Your task to perform on an android device: toggle airplane mode Image 0: 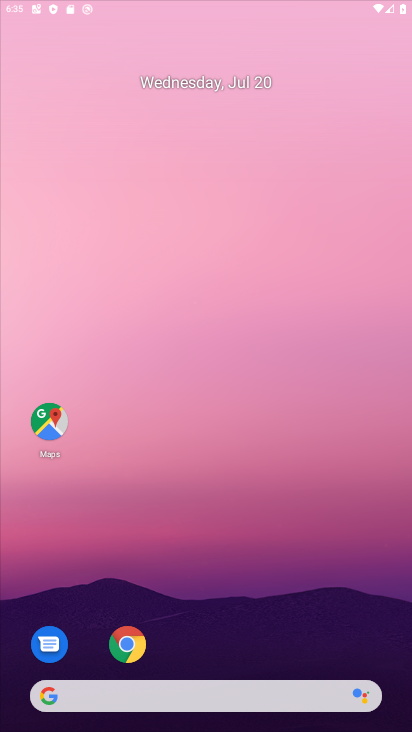
Step 0: press home button
Your task to perform on an android device: toggle airplane mode Image 1: 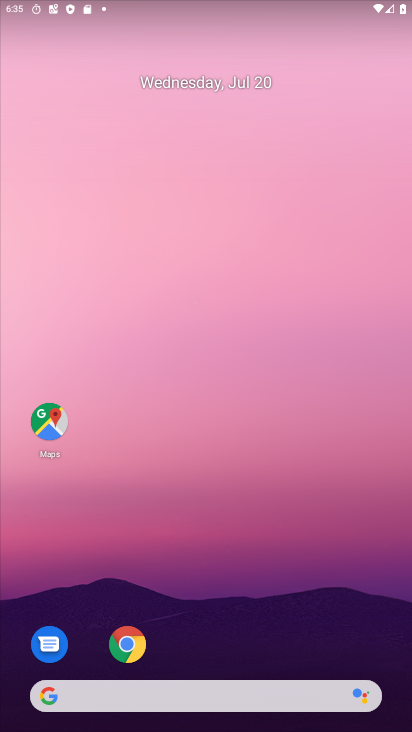
Step 1: drag from (191, 8) to (210, 565)
Your task to perform on an android device: toggle airplane mode Image 2: 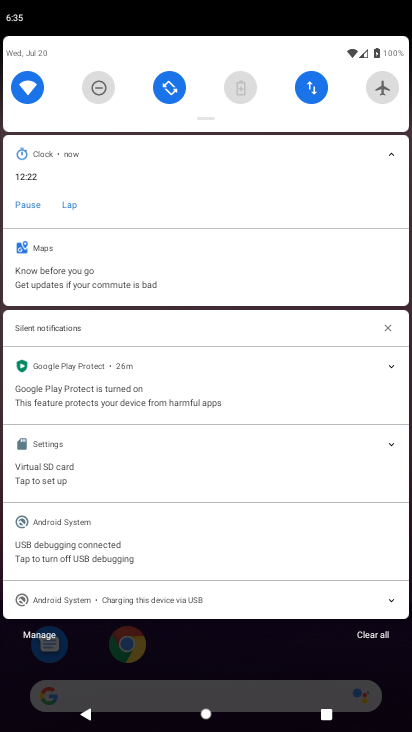
Step 2: click (377, 92)
Your task to perform on an android device: toggle airplane mode Image 3: 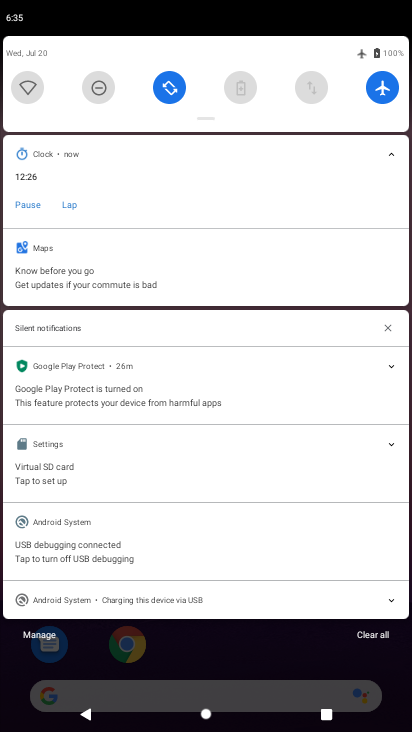
Step 3: task complete